Your task to perform on an android device: Open CNN.com Image 0: 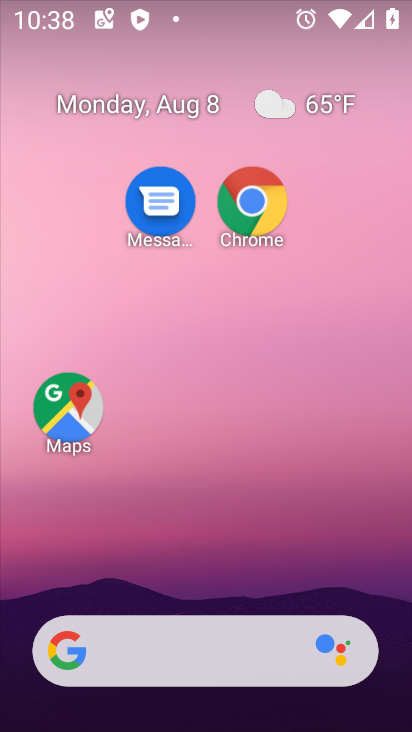
Step 0: press home button
Your task to perform on an android device: Open CNN.com Image 1: 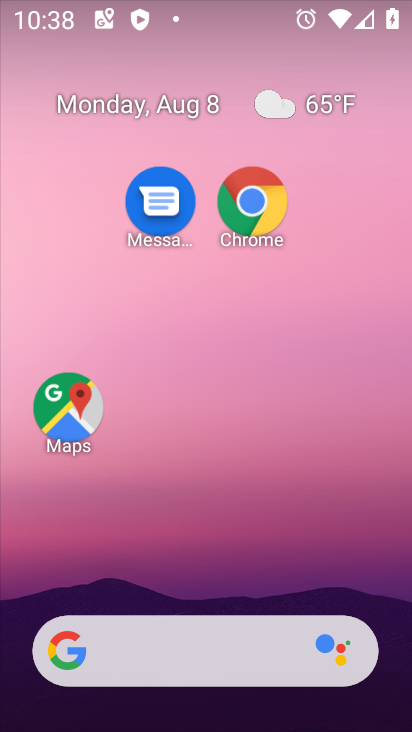
Step 1: drag from (226, 579) to (263, 66)
Your task to perform on an android device: Open CNN.com Image 2: 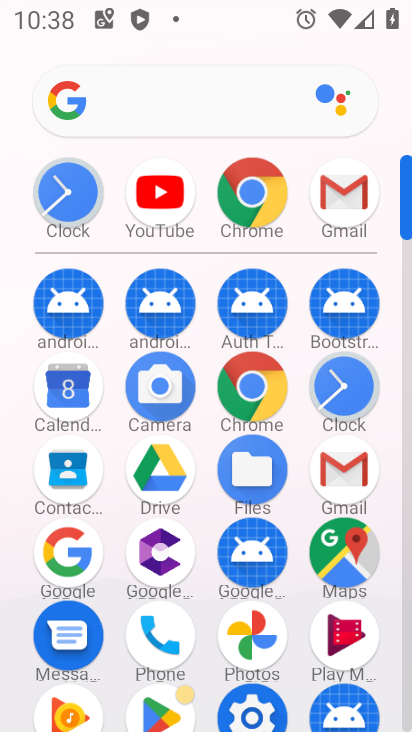
Step 2: click (246, 379)
Your task to perform on an android device: Open CNN.com Image 3: 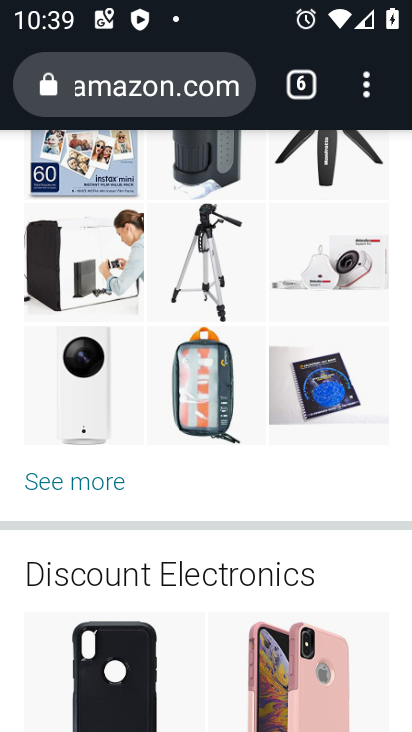
Step 3: drag from (215, 654) to (193, 239)
Your task to perform on an android device: Open CNN.com Image 4: 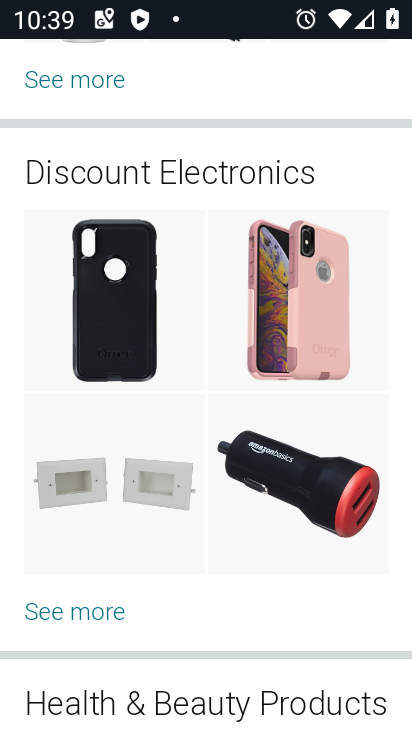
Step 4: drag from (220, 138) to (215, 553)
Your task to perform on an android device: Open CNN.com Image 5: 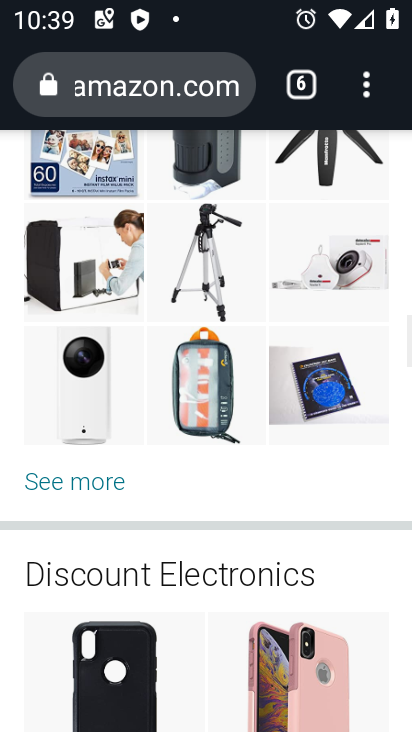
Step 5: click (297, 78)
Your task to perform on an android device: Open CNN.com Image 6: 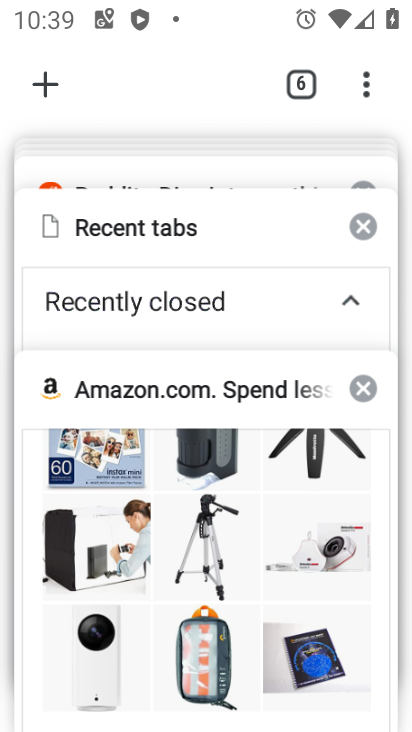
Step 6: click (365, 387)
Your task to perform on an android device: Open CNN.com Image 7: 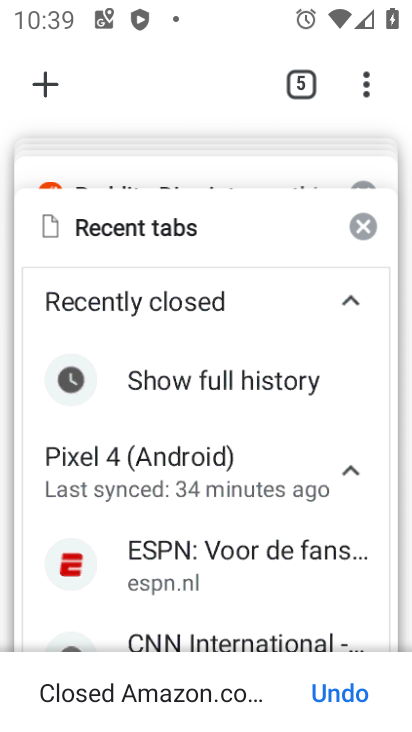
Step 7: click (365, 226)
Your task to perform on an android device: Open CNN.com Image 8: 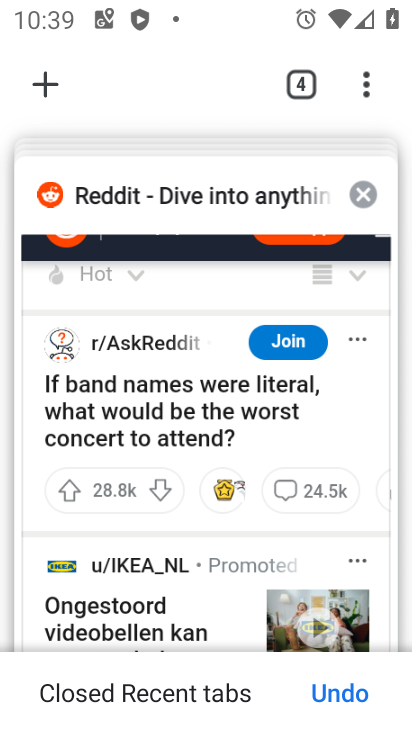
Step 8: click (363, 190)
Your task to perform on an android device: Open CNN.com Image 9: 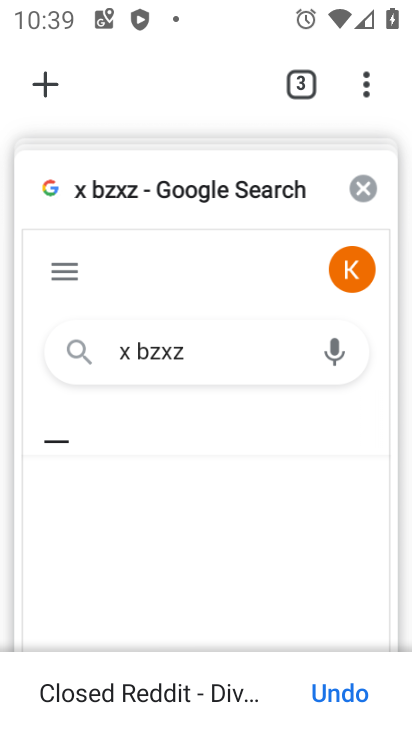
Step 9: click (363, 190)
Your task to perform on an android device: Open CNN.com Image 10: 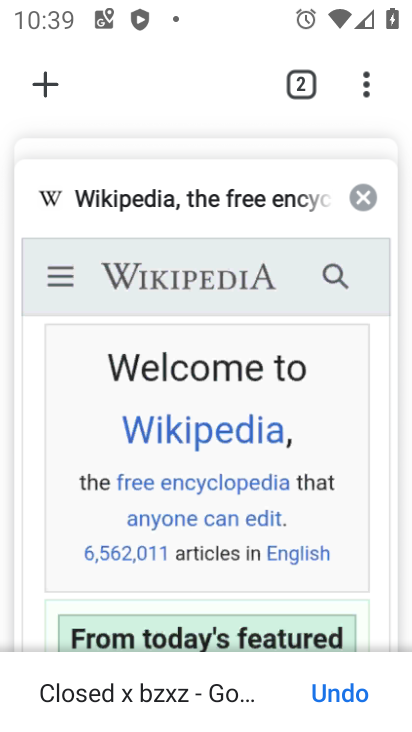
Step 10: click (363, 190)
Your task to perform on an android device: Open CNN.com Image 11: 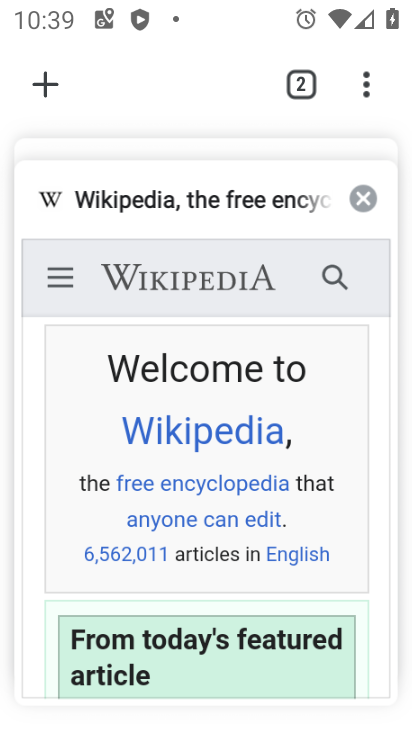
Step 11: click (362, 194)
Your task to perform on an android device: Open CNN.com Image 12: 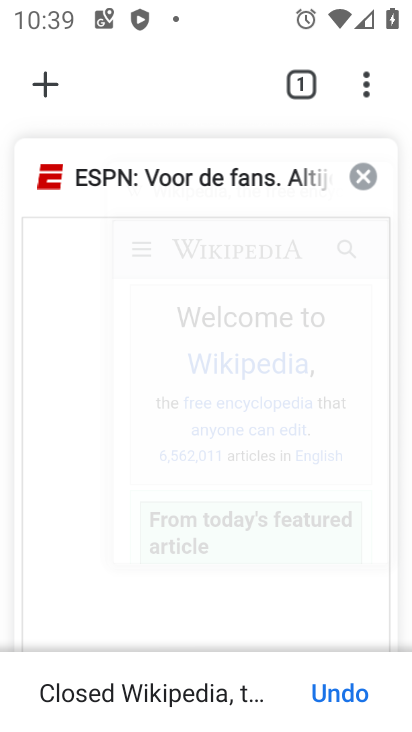
Step 12: click (367, 172)
Your task to perform on an android device: Open CNN.com Image 13: 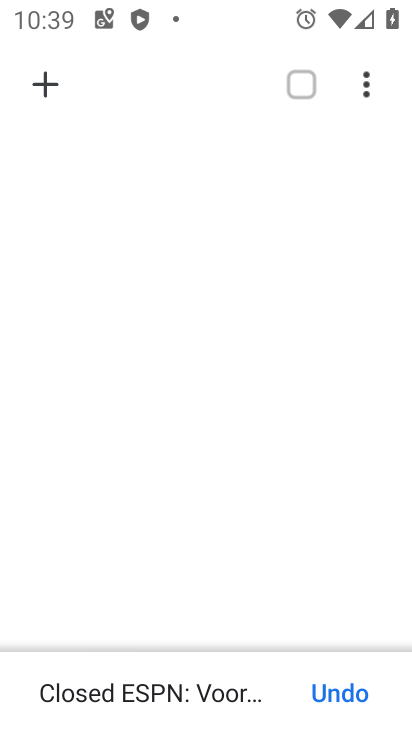
Step 13: click (36, 74)
Your task to perform on an android device: Open CNN.com Image 14: 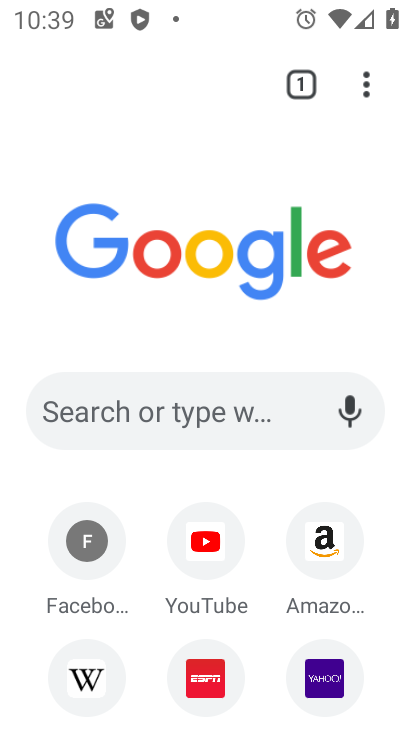
Step 14: click (102, 411)
Your task to perform on an android device: Open CNN.com Image 15: 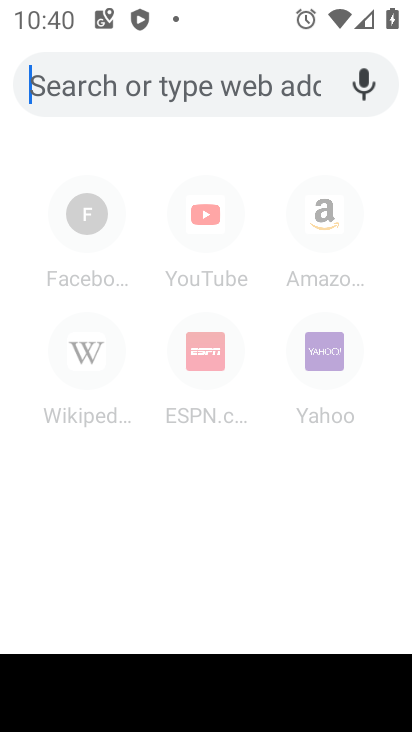
Step 15: type "cnn.com"
Your task to perform on an android device: Open CNN.com Image 16: 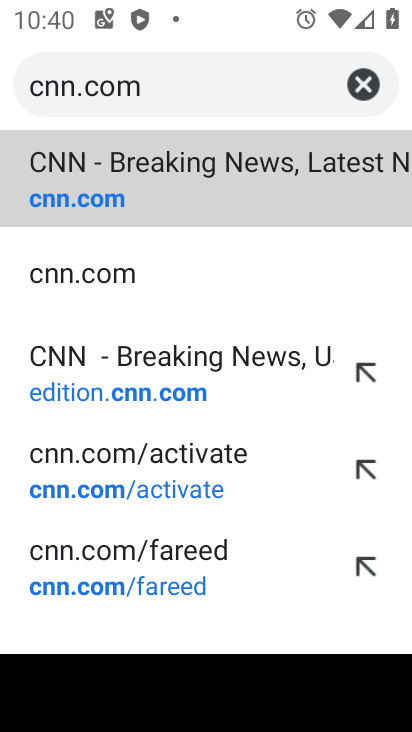
Step 16: click (157, 182)
Your task to perform on an android device: Open CNN.com Image 17: 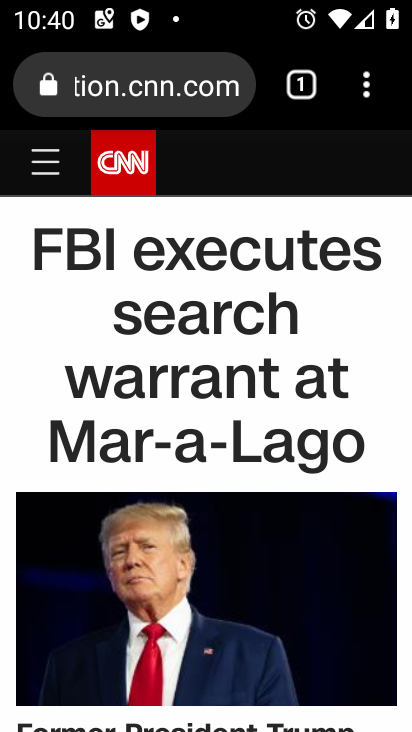
Step 17: task complete